Your task to perform on an android device: Is it going to rain tomorrow? Image 0: 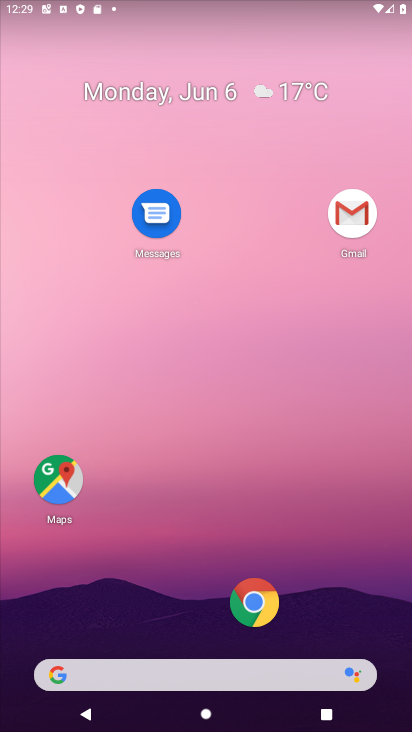
Step 0: drag from (154, 628) to (174, 115)
Your task to perform on an android device: Is it going to rain tomorrow? Image 1: 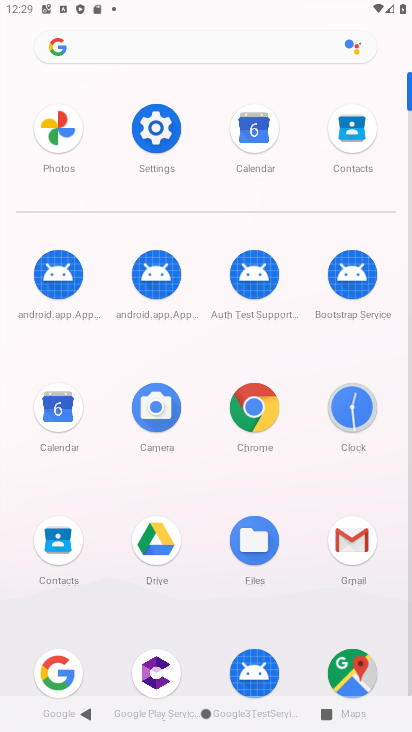
Step 1: click (140, 51)
Your task to perform on an android device: Is it going to rain tomorrow? Image 2: 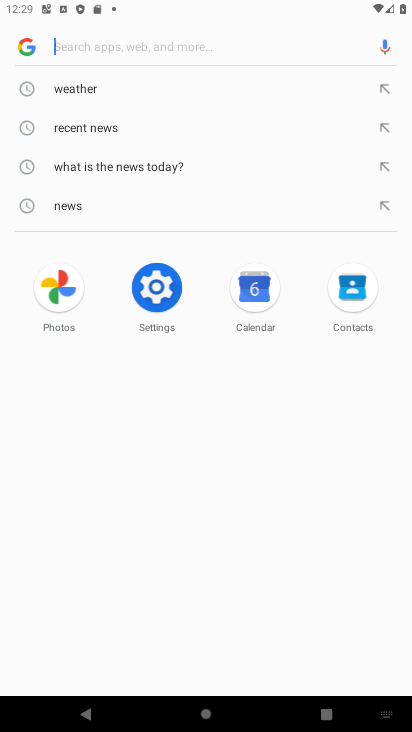
Step 2: click (251, 82)
Your task to perform on an android device: Is it going to rain tomorrow? Image 3: 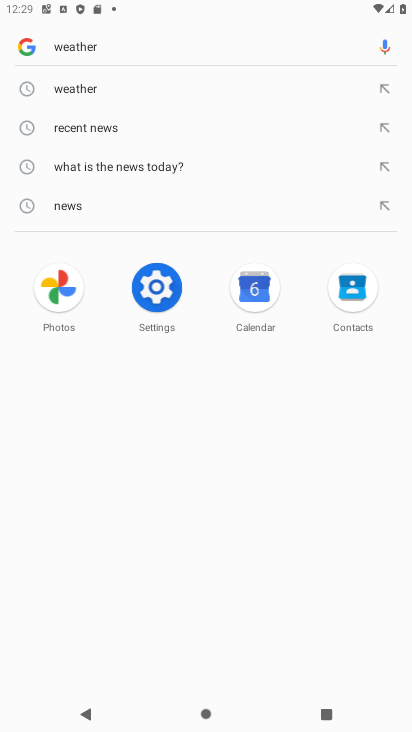
Step 3: task complete